Your task to perform on an android device: Open the map Image 0: 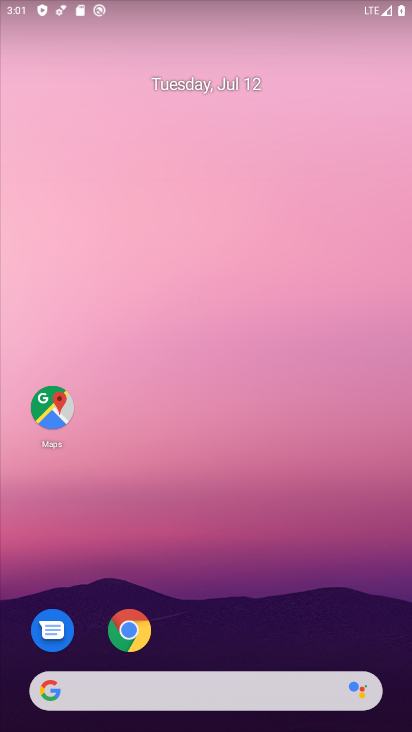
Step 0: click (53, 409)
Your task to perform on an android device: Open the map Image 1: 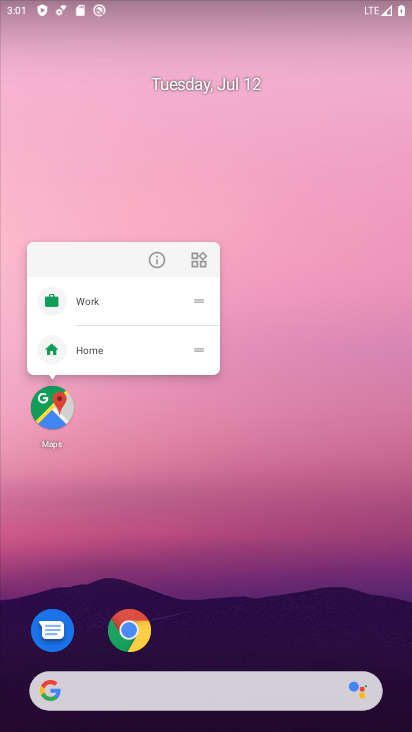
Step 1: click (63, 400)
Your task to perform on an android device: Open the map Image 2: 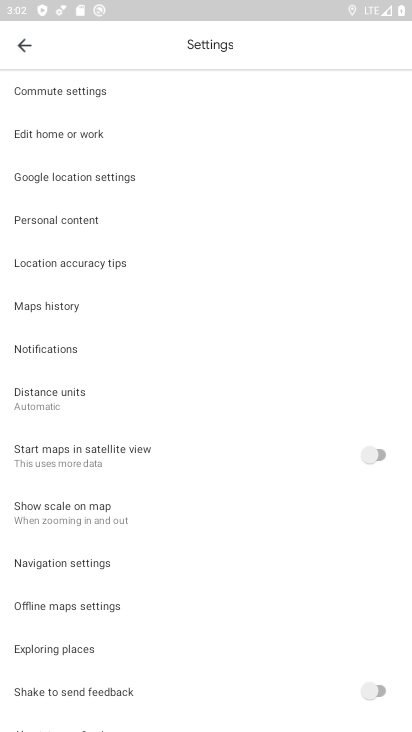
Step 2: click (20, 42)
Your task to perform on an android device: Open the map Image 3: 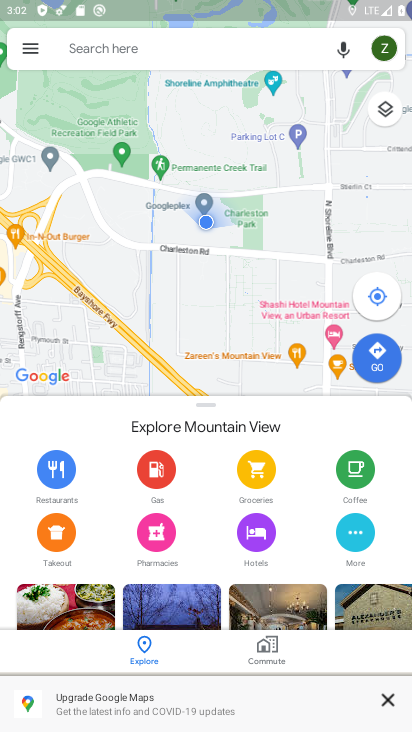
Step 3: task complete